Your task to perform on an android device: check google app version Image 0: 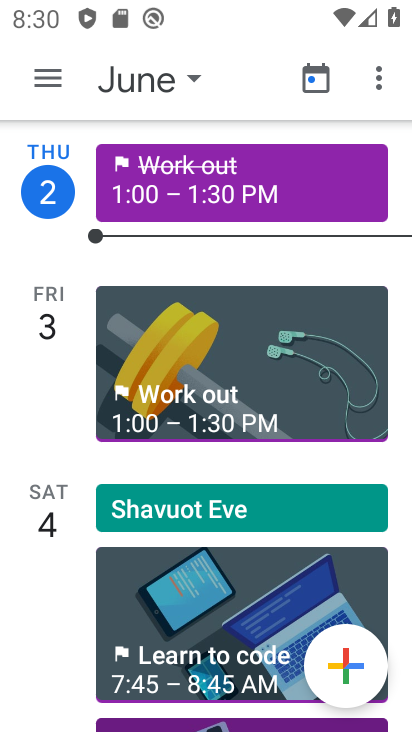
Step 0: press home button
Your task to perform on an android device: check google app version Image 1: 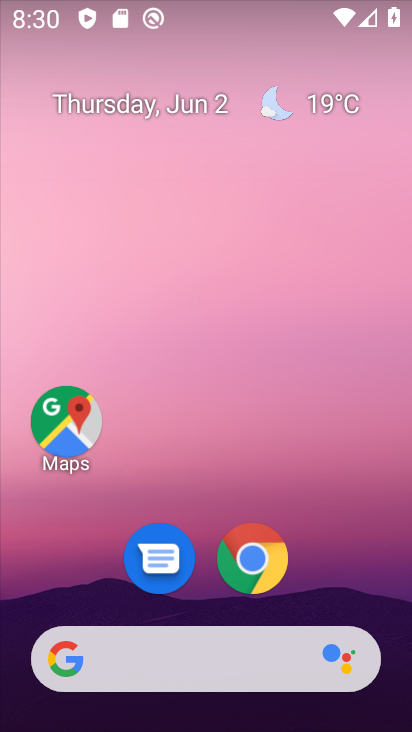
Step 1: drag from (357, 562) to (319, 136)
Your task to perform on an android device: check google app version Image 2: 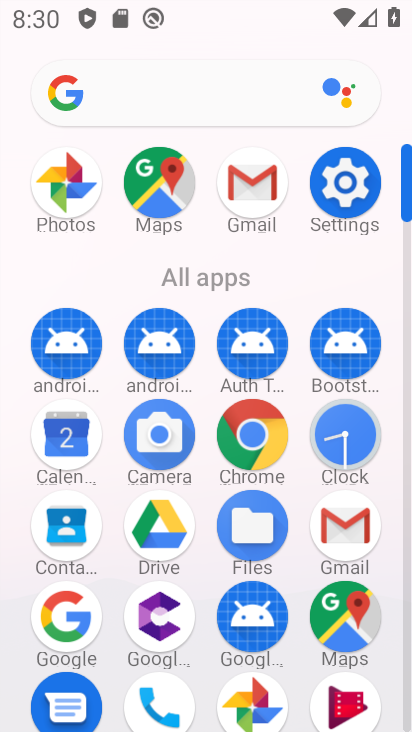
Step 2: click (65, 609)
Your task to perform on an android device: check google app version Image 3: 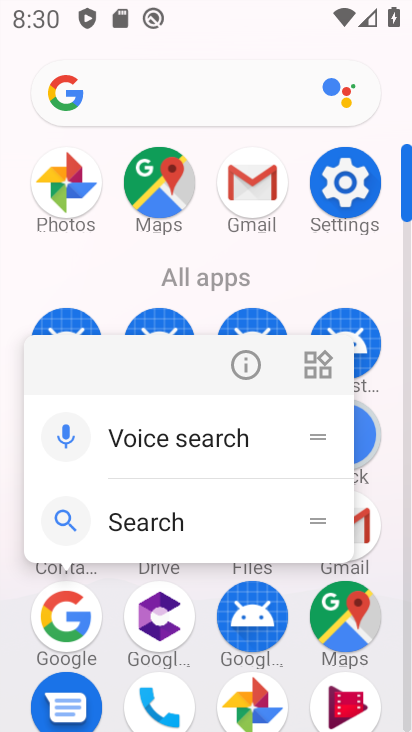
Step 3: click (244, 362)
Your task to perform on an android device: check google app version Image 4: 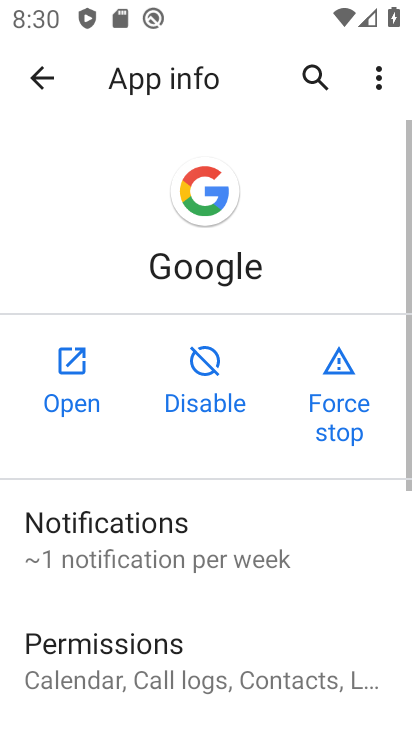
Step 4: drag from (260, 594) to (280, 160)
Your task to perform on an android device: check google app version Image 5: 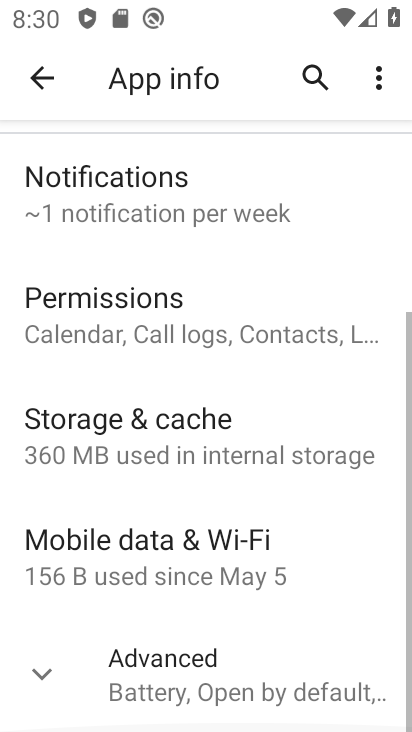
Step 5: click (298, 109)
Your task to perform on an android device: check google app version Image 6: 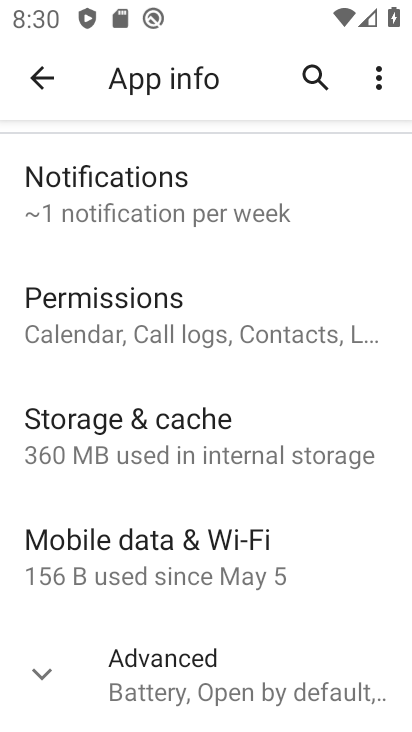
Step 6: click (198, 688)
Your task to perform on an android device: check google app version Image 7: 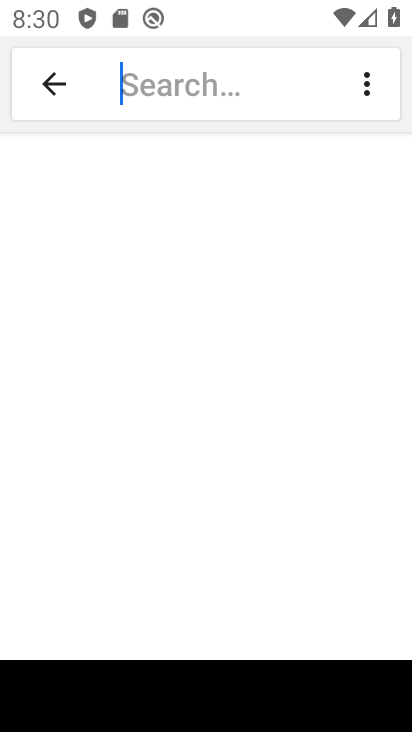
Step 7: click (58, 79)
Your task to perform on an android device: check google app version Image 8: 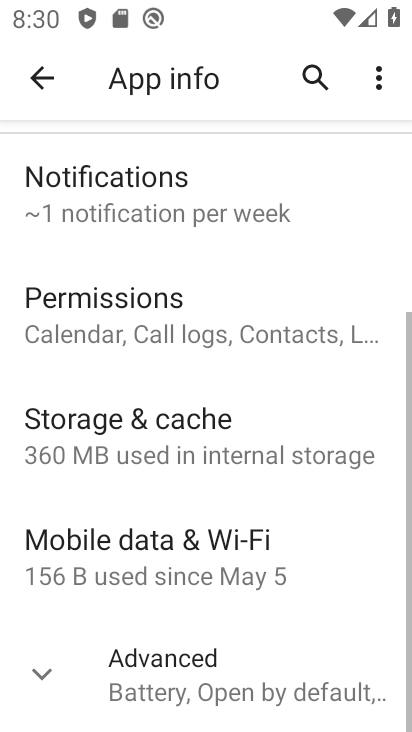
Step 8: click (40, 667)
Your task to perform on an android device: check google app version Image 9: 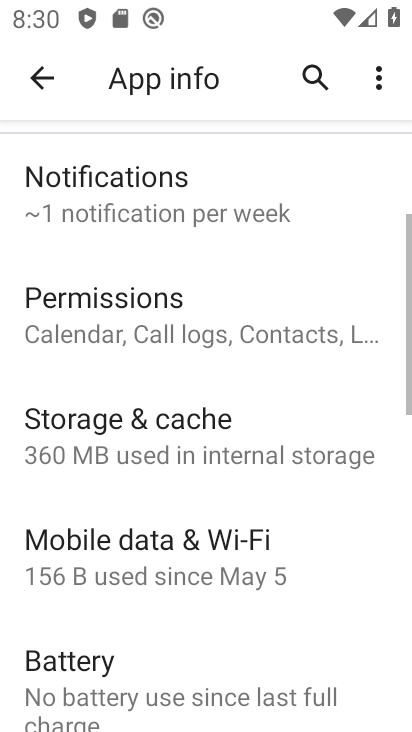
Step 9: task complete